Your task to perform on an android device: manage bookmarks in the chrome app Image 0: 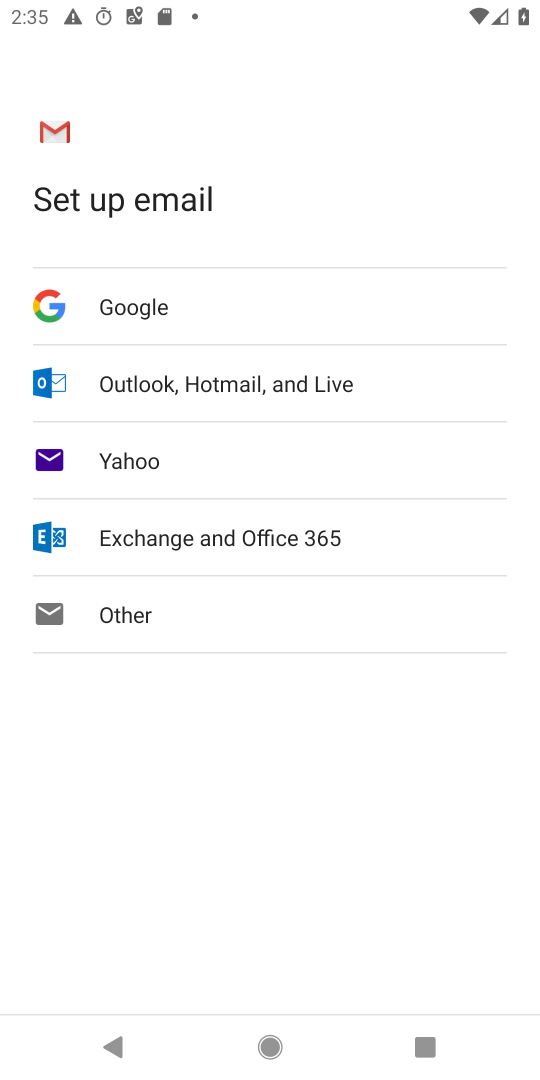
Step 0: press home button
Your task to perform on an android device: manage bookmarks in the chrome app Image 1: 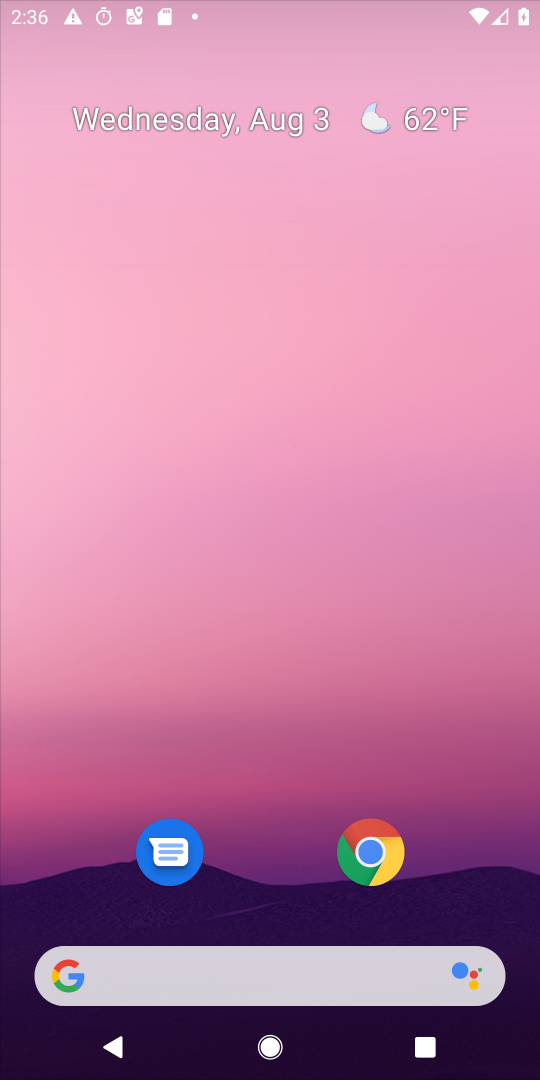
Step 1: drag from (513, 935) to (181, 66)
Your task to perform on an android device: manage bookmarks in the chrome app Image 2: 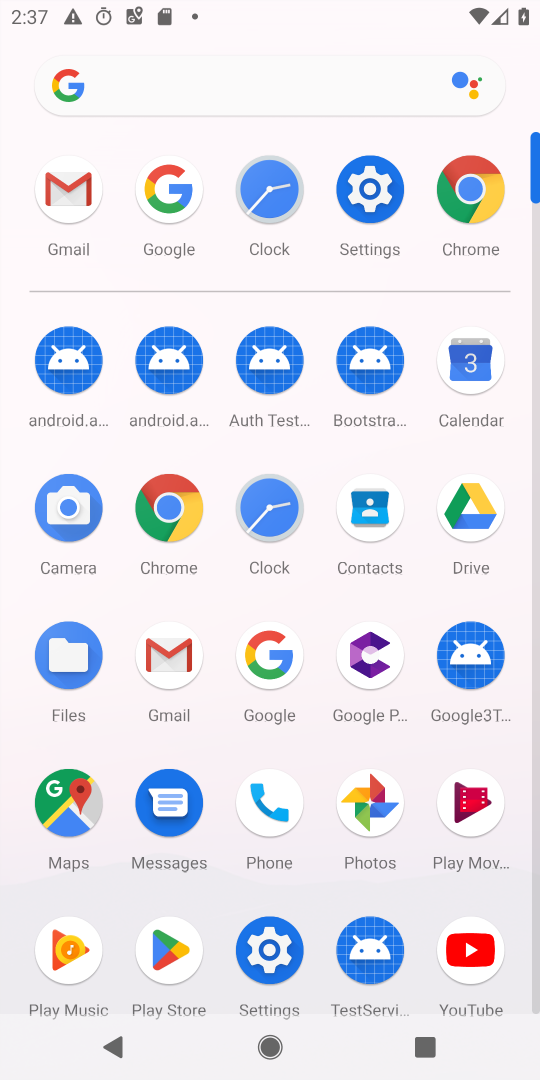
Step 2: click (174, 515)
Your task to perform on an android device: manage bookmarks in the chrome app Image 3: 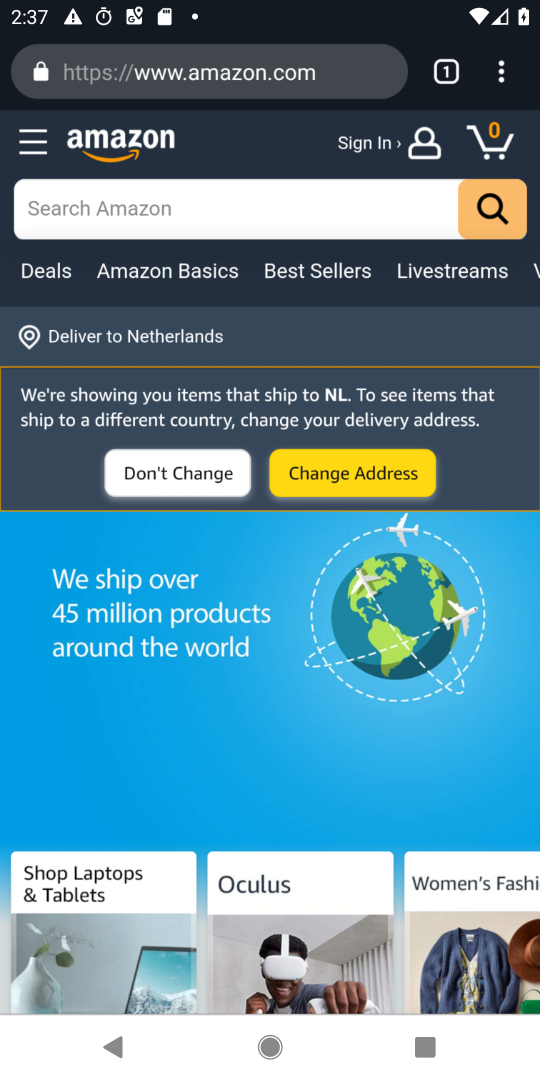
Step 3: task complete